Your task to perform on an android device: manage bookmarks in the chrome app Image 0: 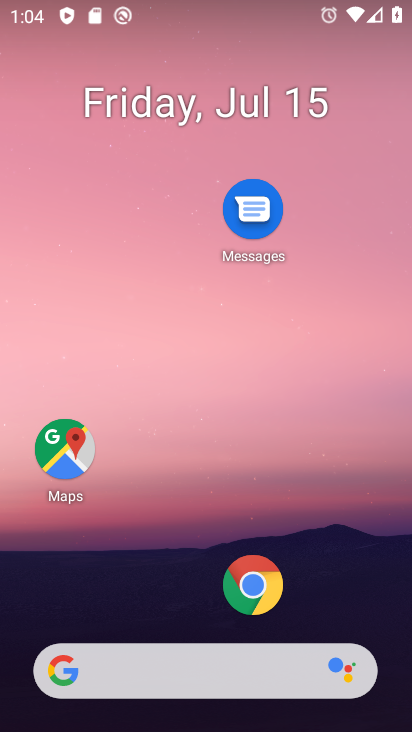
Step 0: press home button
Your task to perform on an android device: manage bookmarks in the chrome app Image 1: 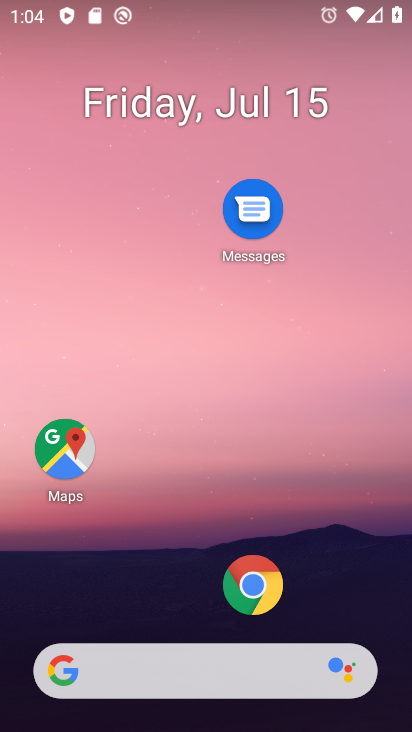
Step 1: click (259, 596)
Your task to perform on an android device: manage bookmarks in the chrome app Image 2: 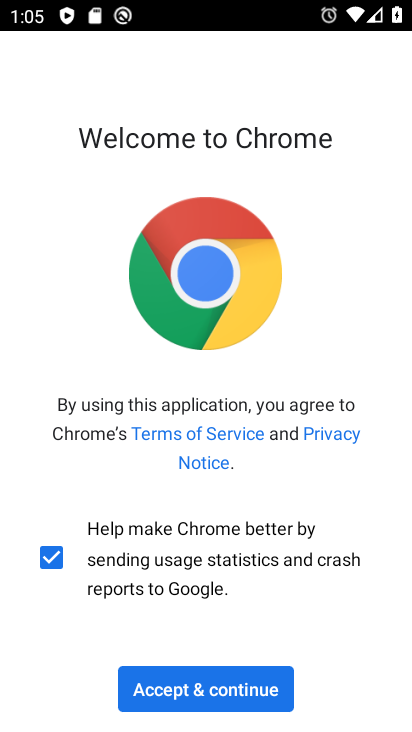
Step 2: click (243, 690)
Your task to perform on an android device: manage bookmarks in the chrome app Image 3: 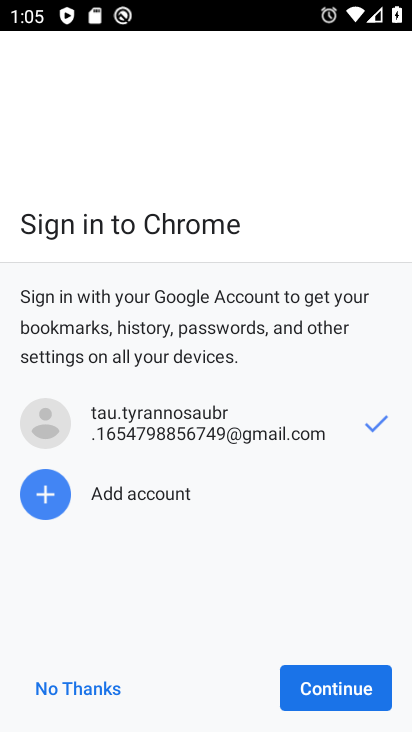
Step 3: click (317, 694)
Your task to perform on an android device: manage bookmarks in the chrome app Image 4: 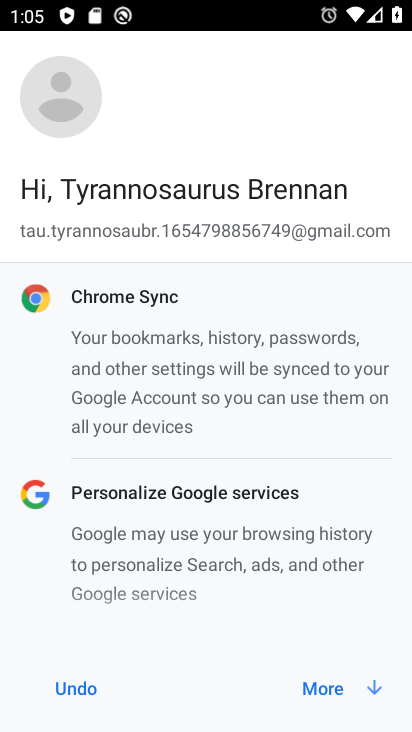
Step 4: click (327, 690)
Your task to perform on an android device: manage bookmarks in the chrome app Image 5: 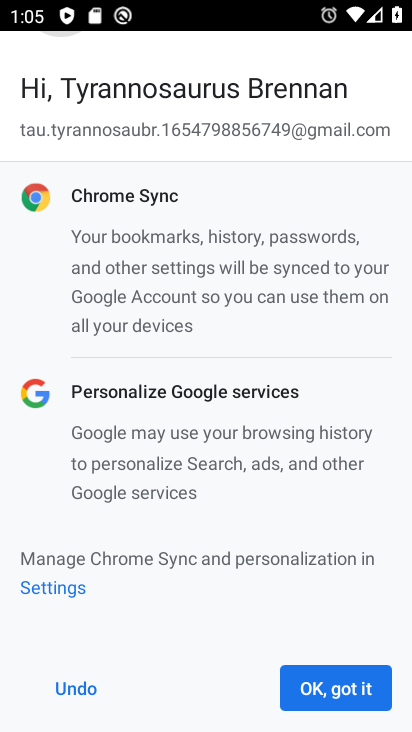
Step 5: click (352, 691)
Your task to perform on an android device: manage bookmarks in the chrome app Image 6: 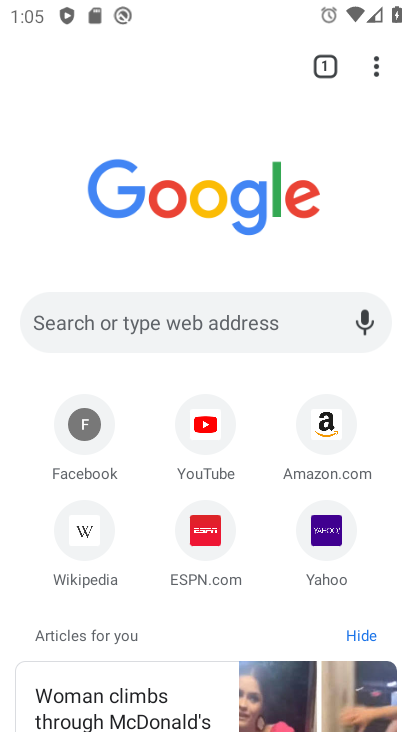
Step 6: drag from (373, 66) to (249, 254)
Your task to perform on an android device: manage bookmarks in the chrome app Image 7: 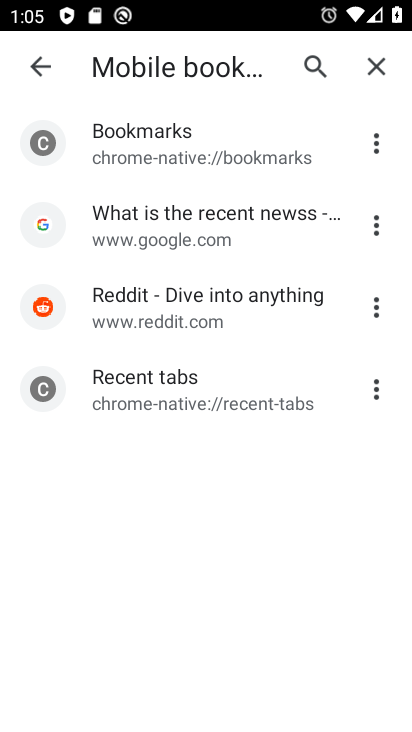
Step 7: click (375, 141)
Your task to perform on an android device: manage bookmarks in the chrome app Image 8: 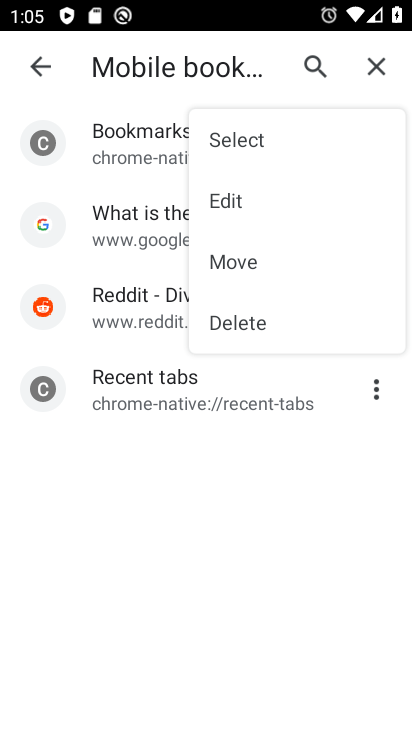
Step 8: click (261, 320)
Your task to perform on an android device: manage bookmarks in the chrome app Image 9: 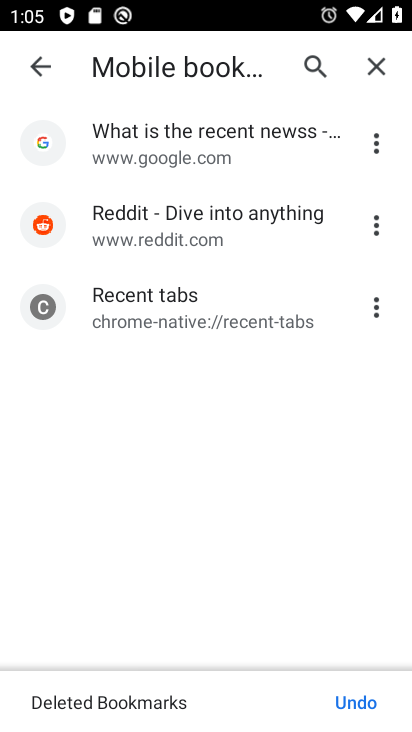
Step 9: task complete